Your task to perform on an android device: allow notifications from all sites in the chrome app Image 0: 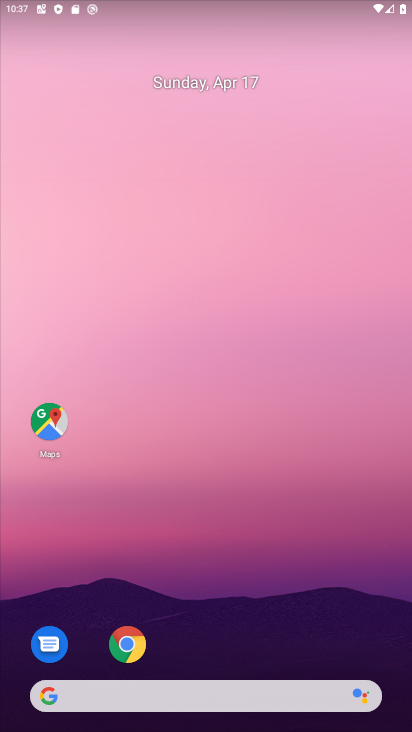
Step 0: click (130, 648)
Your task to perform on an android device: allow notifications from all sites in the chrome app Image 1: 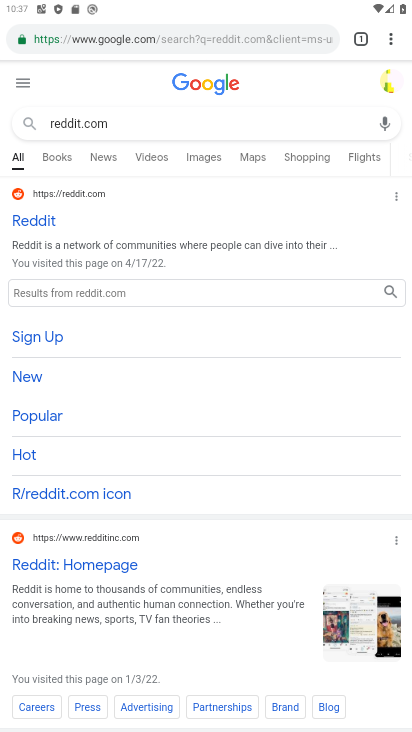
Step 1: click (395, 39)
Your task to perform on an android device: allow notifications from all sites in the chrome app Image 2: 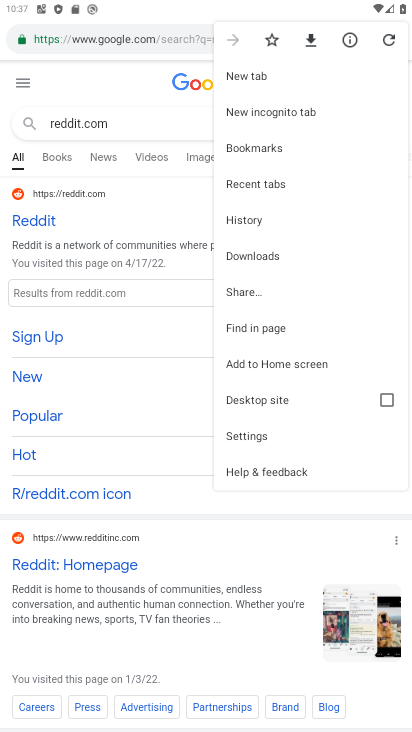
Step 2: click (258, 437)
Your task to perform on an android device: allow notifications from all sites in the chrome app Image 3: 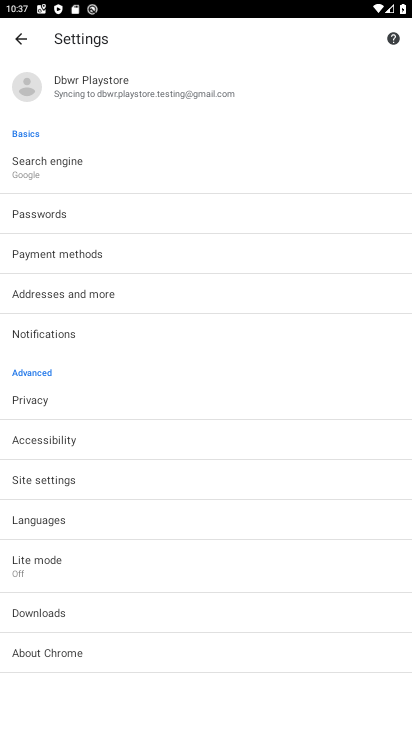
Step 3: click (60, 480)
Your task to perform on an android device: allow notifications from all sites in the chrome app Image 4: 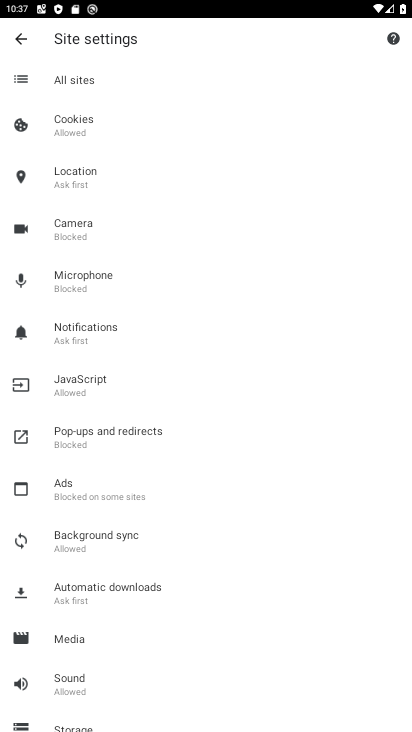
Step 4: click (108, 337)
Your task to perform on an android device: allow notifications from all sites in the chrome app Image 5: 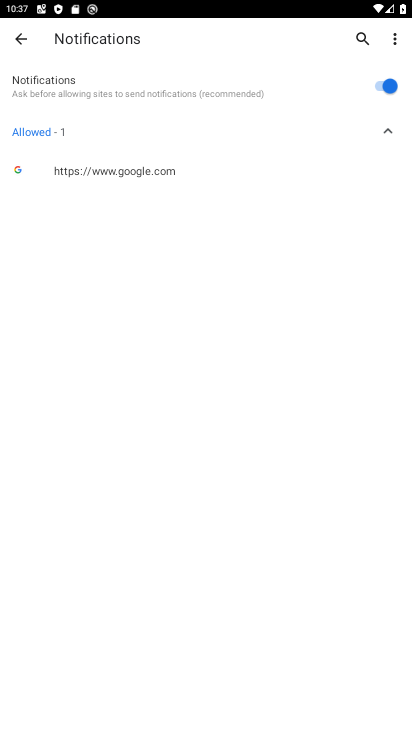
Step 5: task complete